Your task to perform on an android device: turn off location Image 0: 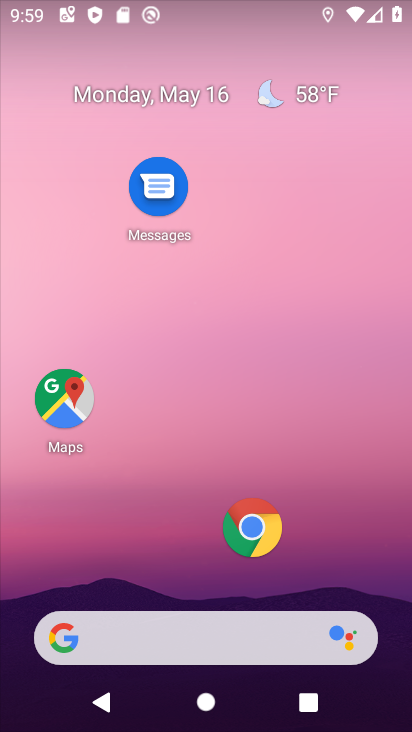
Step 0: drag from (168, 550) to (267, 96)
Your task to perform on an android device: turn off location Image 1: 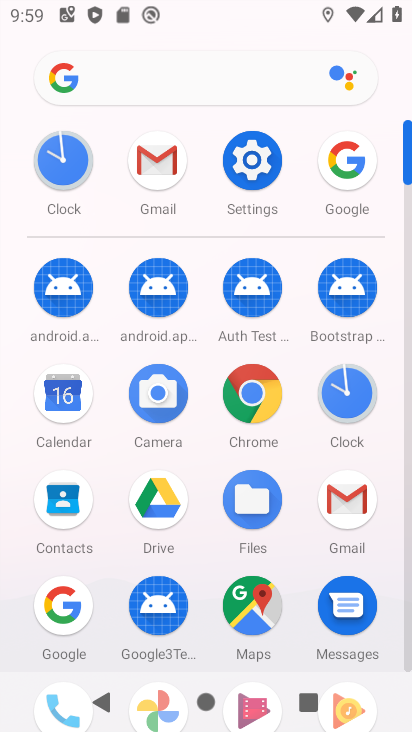
Step 1: click (252, 157)
Your task to perform on an android device: turn off location Image 2: 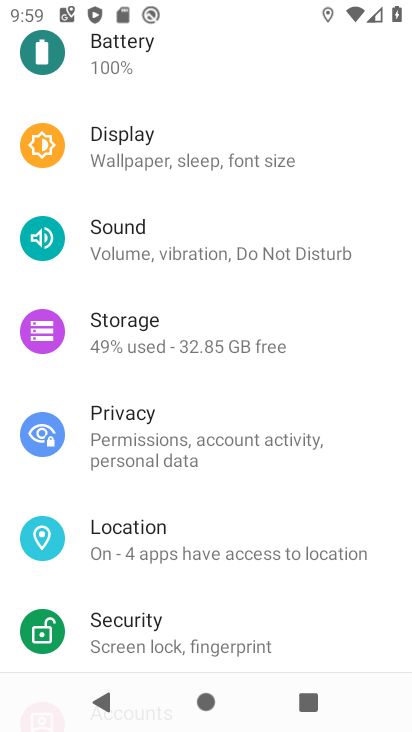
Step 2: click (169, 532)
Your task to perform on an android device: turn off location Image 3: 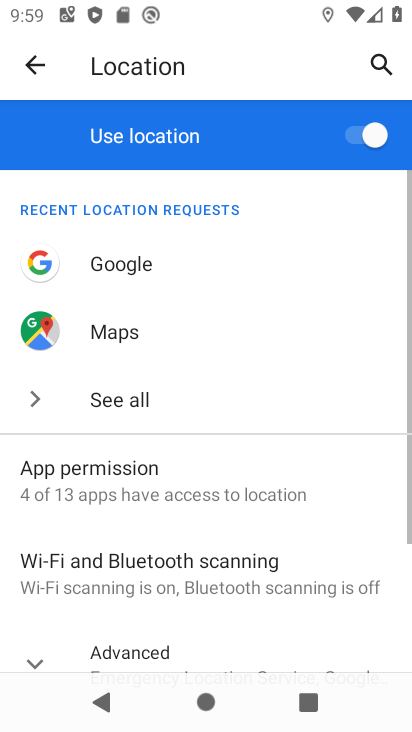
Step 3: drag from (192, 595) to (226, 195)
Your task to perform on an android device: turn off location Image 4: 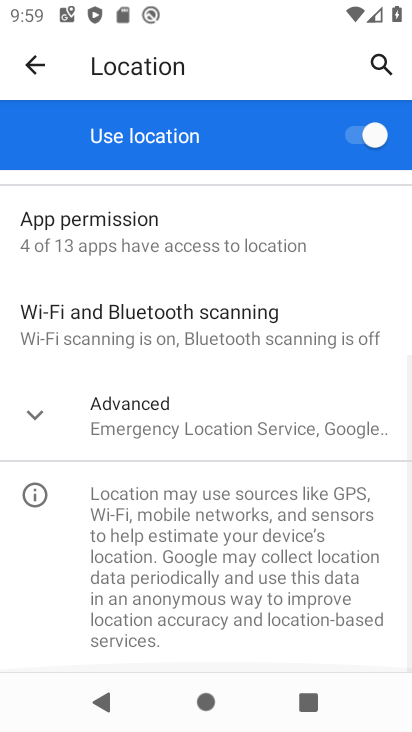
Step 4: drag from (133, 415) to (120, 642)
Your task to perform on an android device: turn off location Image 5: 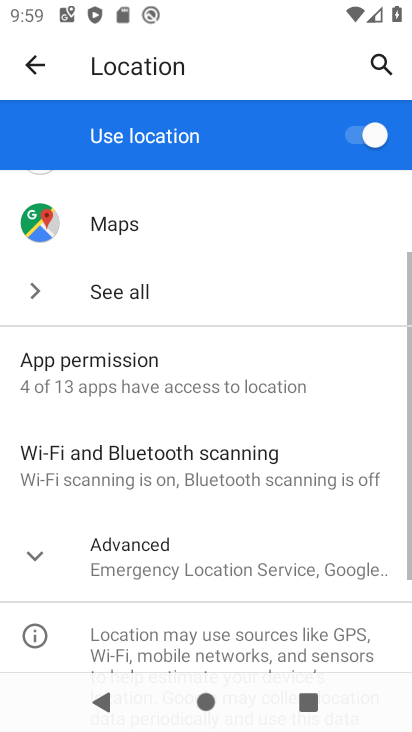
Step 5: click (360, 133)
Your task to perform on an android device: turn off location Image 6: 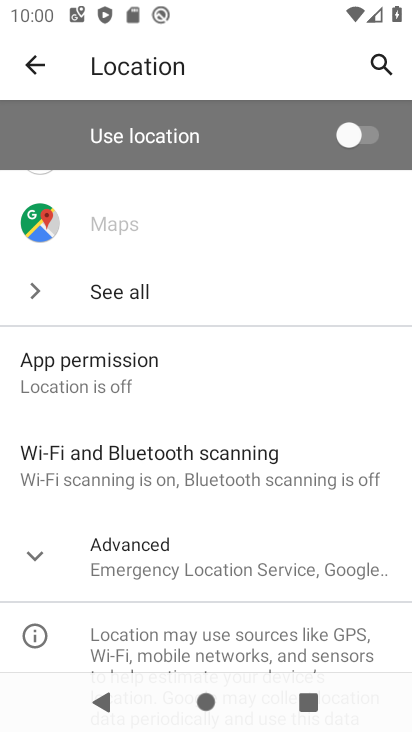
Step 6: task complete